Your task to perform on an android device: turn off wifi Image 0: 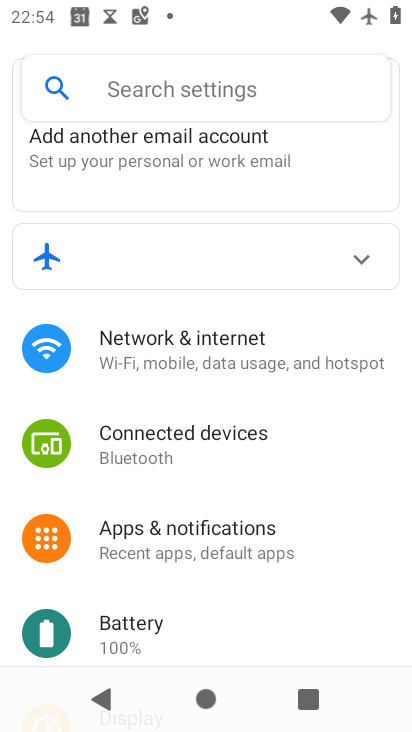
Step 0: click (183, 343)
Your task to perform on an android device: turn off wifi Image 1: 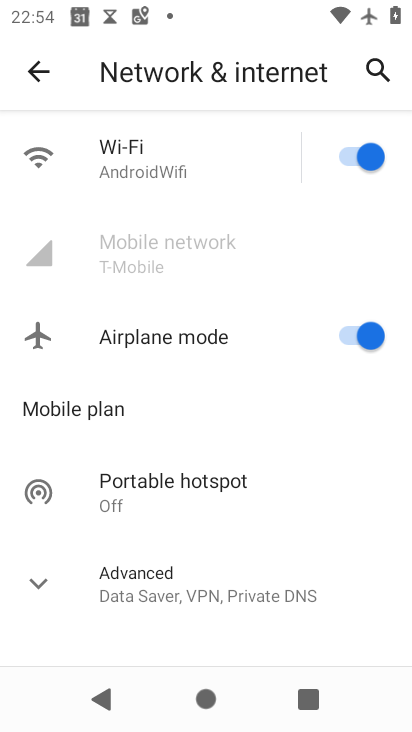
Step 1: click (355, 164)
Your task to perform on an android device: turn off wifi Image 2: 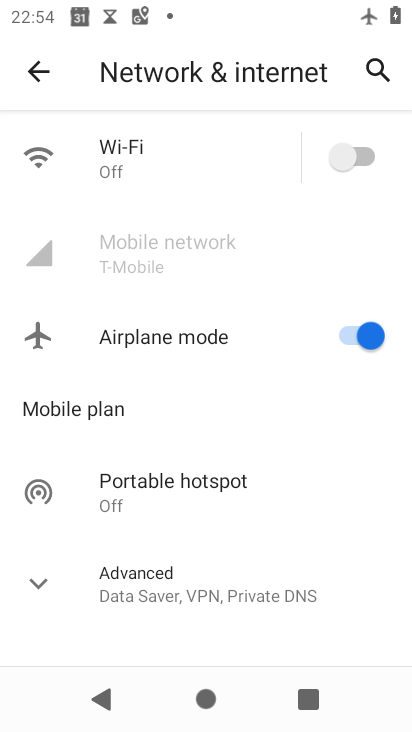
Step 2: task complete